Your task to perform on an android device: See recent photos Image 0: 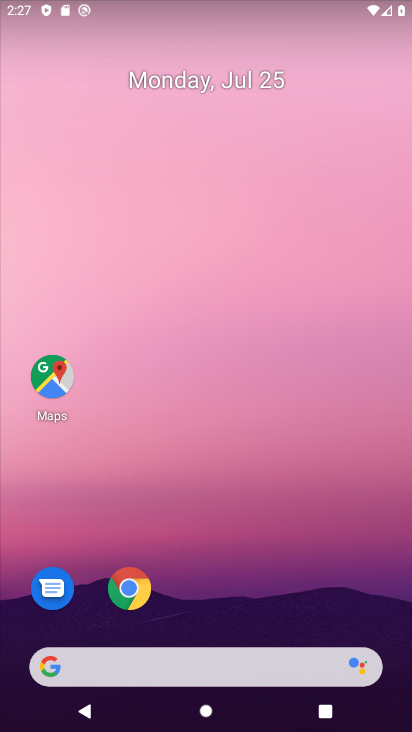
Step 0: drag from (239, 708) to (222, 337)
Your task to perform on an android device: See recent photos Image 1: 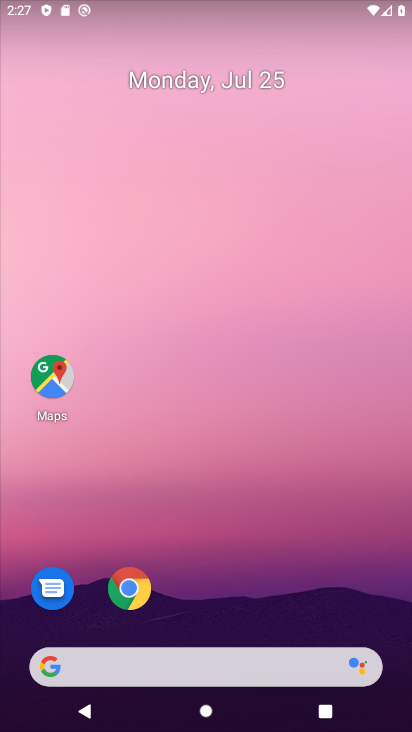
Step 1: drag from (219, 696) to (187, 308)
Your task to perform on an android device: See recent photos Image 2: 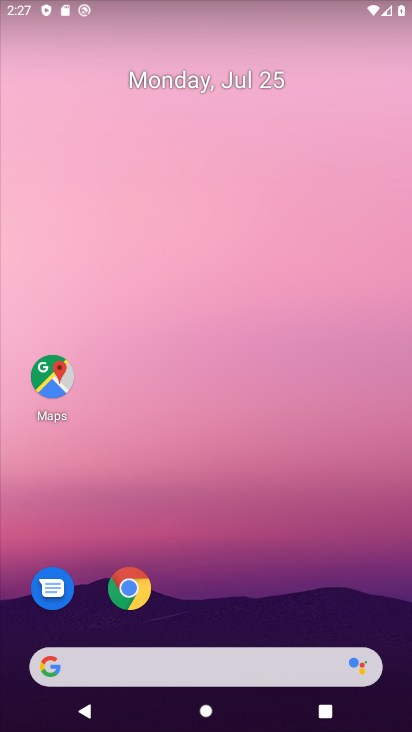
Step 2: drag from (239, 712) to (192, 15)
Your task to perform on an android device: See recent photos Image 3: 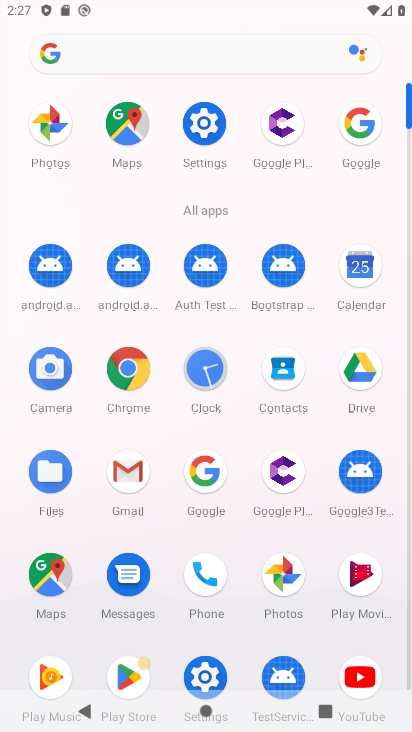
Step 3: click (280, 576)
Your task to perform on an android device: See recent photos Image 4: 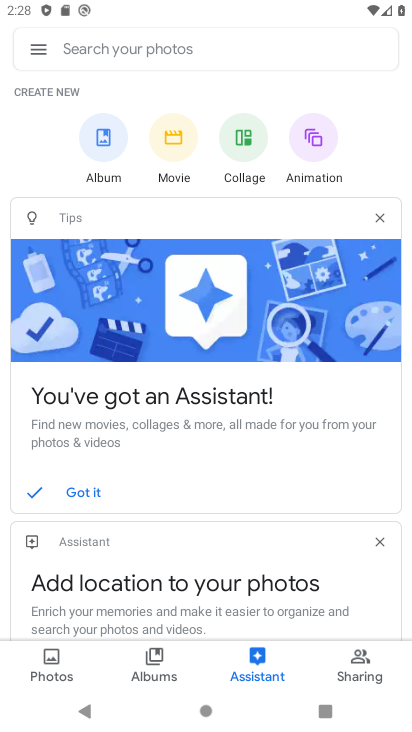
Step 4: click (42, 662)
Your task to perform on an android device: See recent photos Image 5: 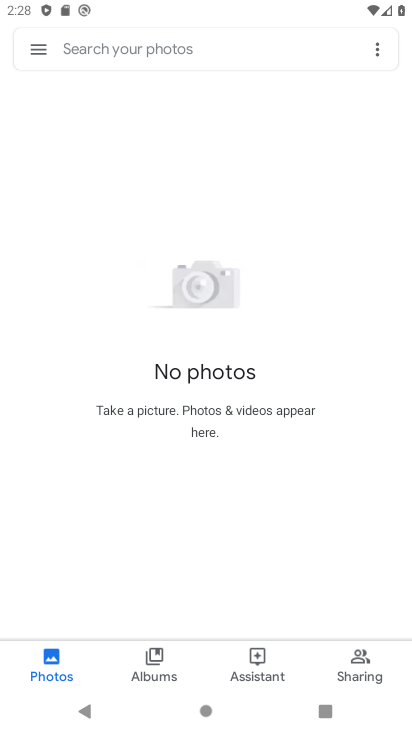
Step 5: task complete